Your task to perform on an android device: toggle translation in the chrome app Image 0: 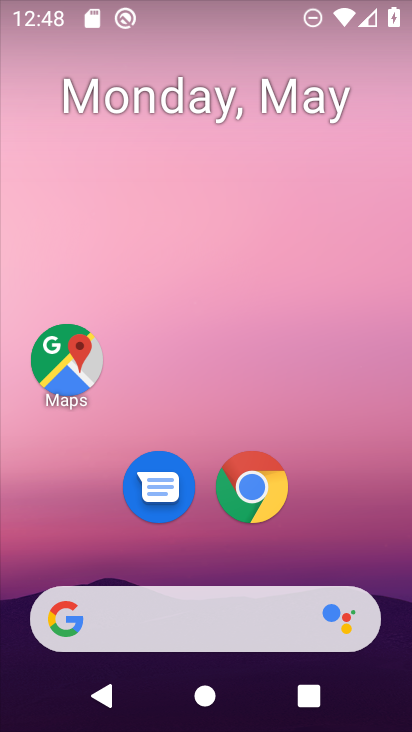
Step 0: click (251, 487)
Your task to perform on an android device: toggle translation in the chrome app Image 1: 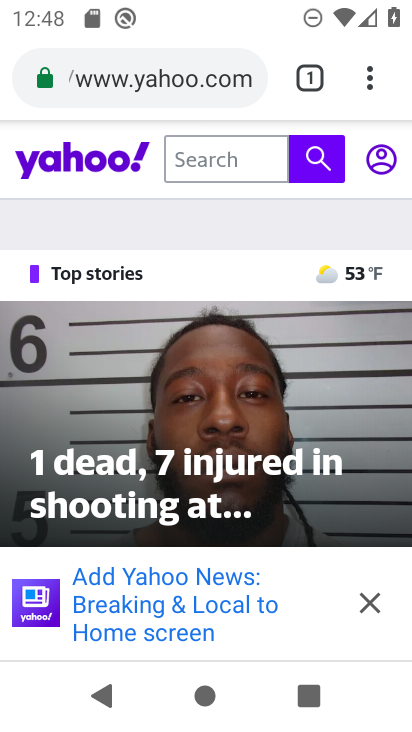
Step 1: click (371, 77)
Your task to perform on an android device: toggle translation in the chrome app Image 2: 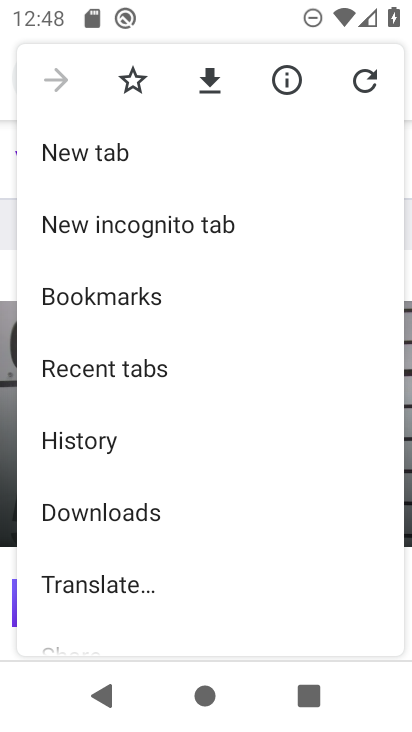
Step 2: drag from (149, 449) to (177, 400)
Your task to perform on an android device: toggle translation in the chrome app Image 3: 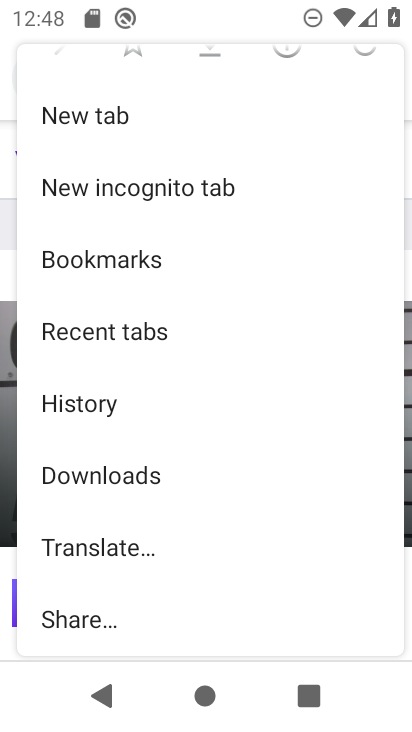
Step 3: drag from (103, 510) to (169, 434)
Your task to perform on an android device: toggle translation in the chrome app Image 4: 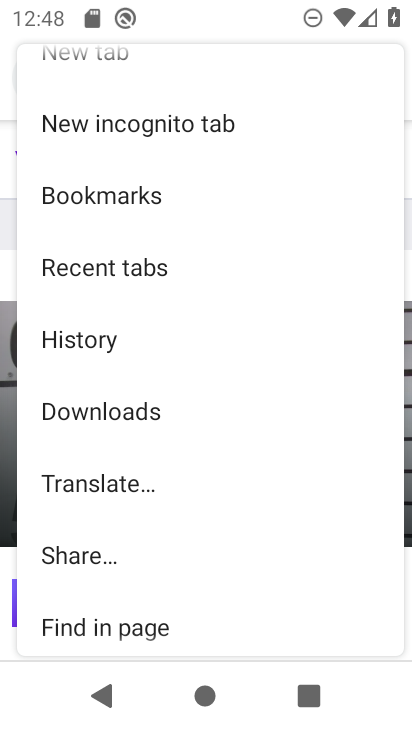
Step 4: drag from (90, 529) to (187, 429)
Your task to perform on an android device: toggle translation in the chrome app Image 5: 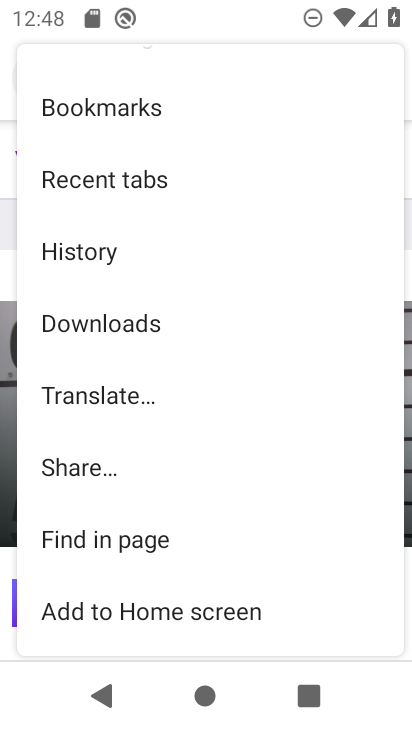
Step 5: drag from (129, 505) to (189, 398)
Your task to perform on an android device: toggle translation in the chrome app Image 6: 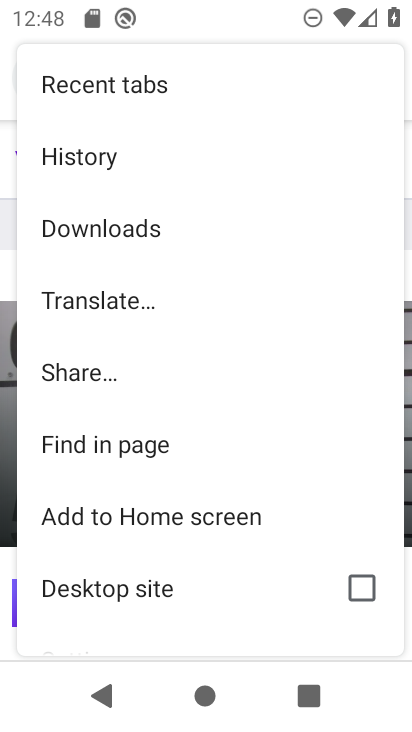
Step 6: drag from (117, 552) to (198, 457)
Your task to perform on an android device: toggle translation in the chrome app Image 7: 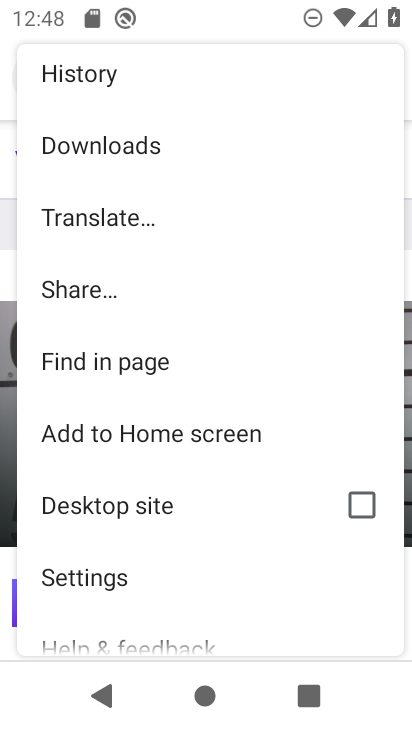
Step 7: drag from (134, 541) to (205, 460)
Your task to perform on an android device: toggle translation in the chrome app Image 8: 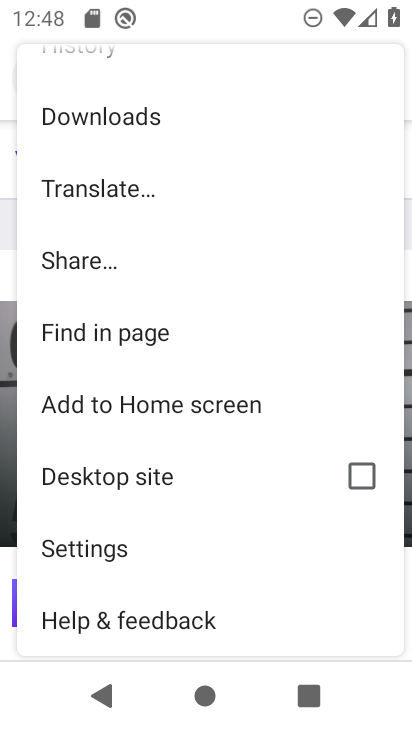
Step 8: click (105, 549)
Your task to perform on an android device: toggle translation in the chrome app Image 9: 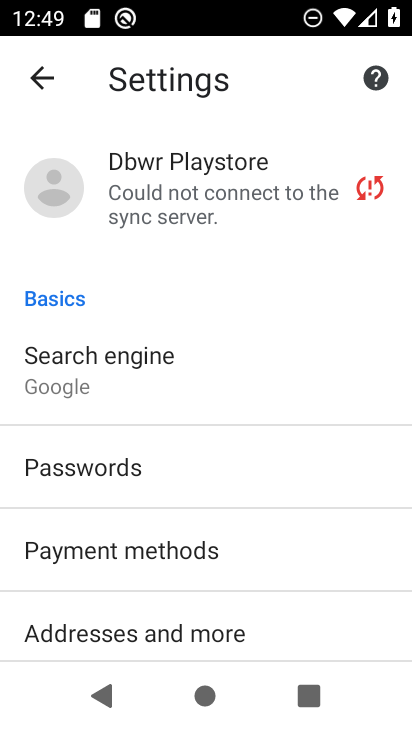
Step 9: drag from (191, 577) to (237, 487)
Your task to perform on an android device: toggle translation in the chrome app Image 10: 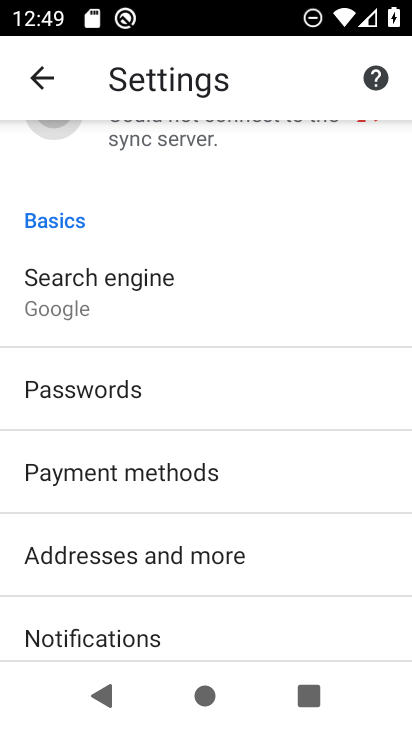
Step 10: drag from (175, 587) to (226, 512)
Your task to perform on an android device: toggle translation in the chrome app Image 11: 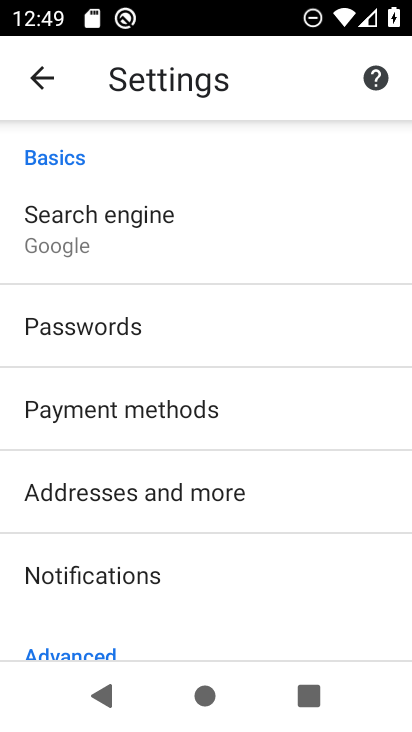
Step 11: drag from (199, 571) to (248, 491)
Your task to perform on an android device: toggle translation in the chrome app Image 12: 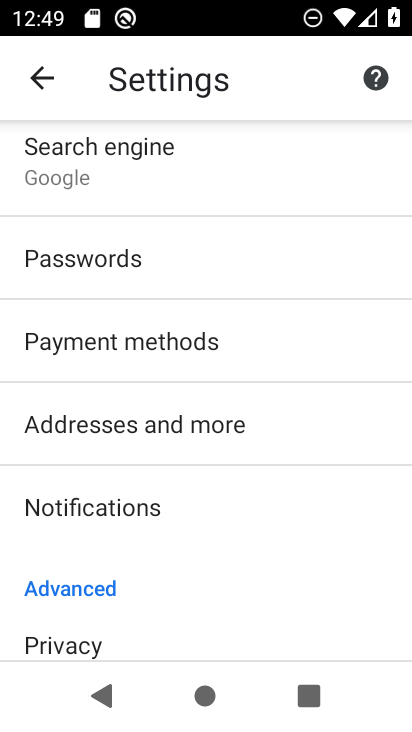
Step 12: drag from (152, 597) to (272, 465)
Your task to perform on an android device: toggle translation in the chrome app Image 13: 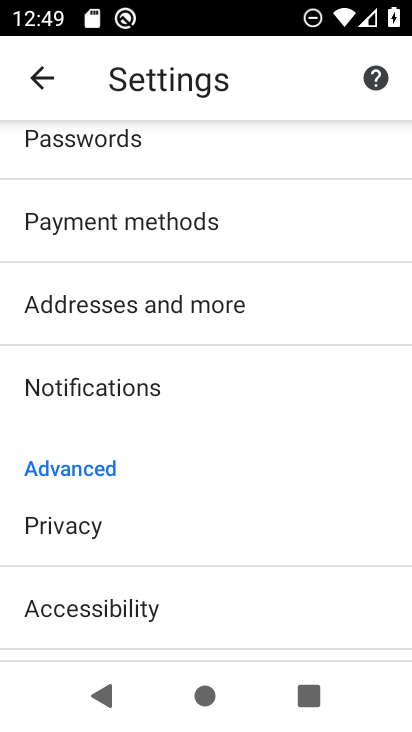
Step 13: drag from (147, 583) to (260, 465)
Your task to perform on an android device: toggle translation in the chrome app Image 14: 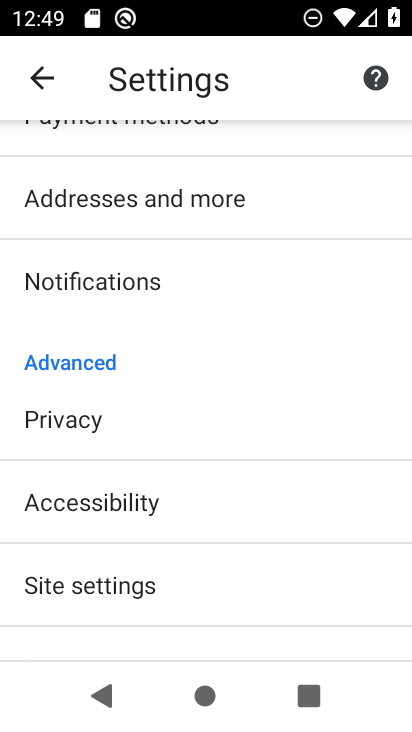
Step 14: drag from (168, 567) to (232, 490)
Your task to perform on an android device: toggle translation in the chrome app Image 15: 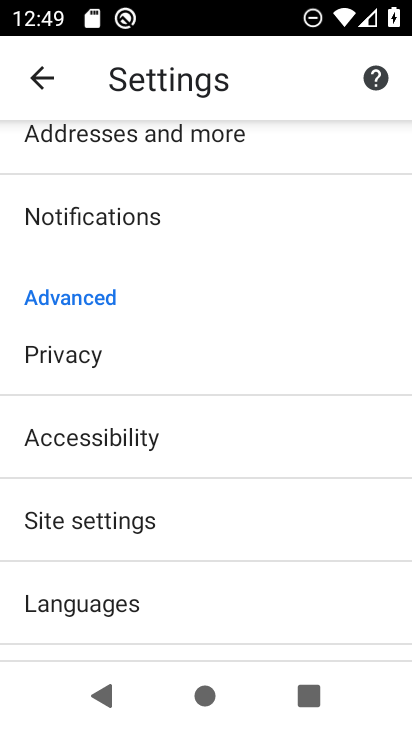
Step 15: drag from (155, 596) to (250, 477)
Your task to perform on an android device: toggle translation in the chrome app Image 16: 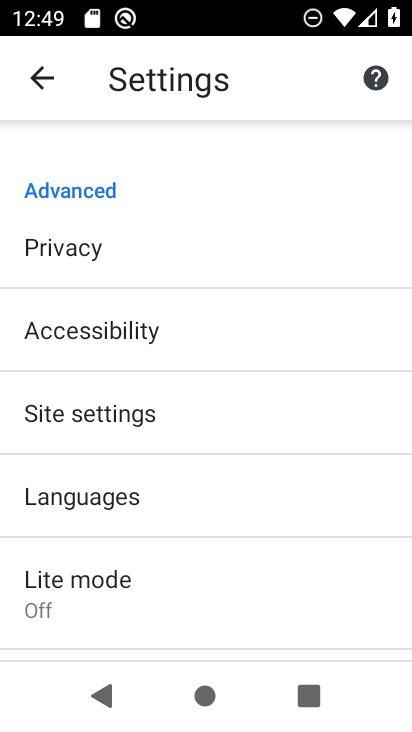
Step 16: click (104, 497)
Your task to perform on an android device: toggle translation in the chrome app Image 17: 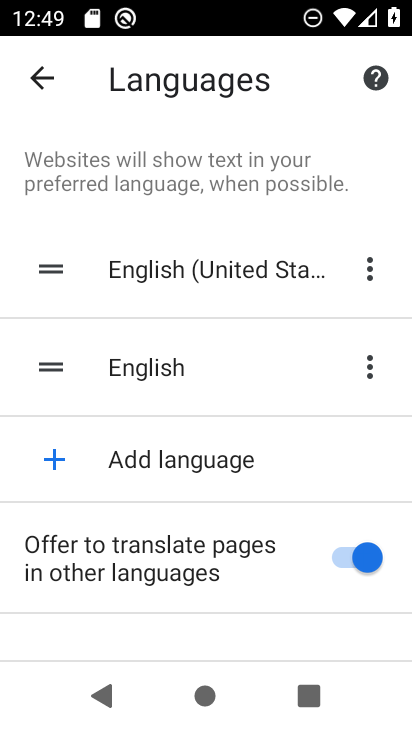
Step 17: click (356, 561)
Your task to perform on an android device: toggle translation in the chrome app Image 18: 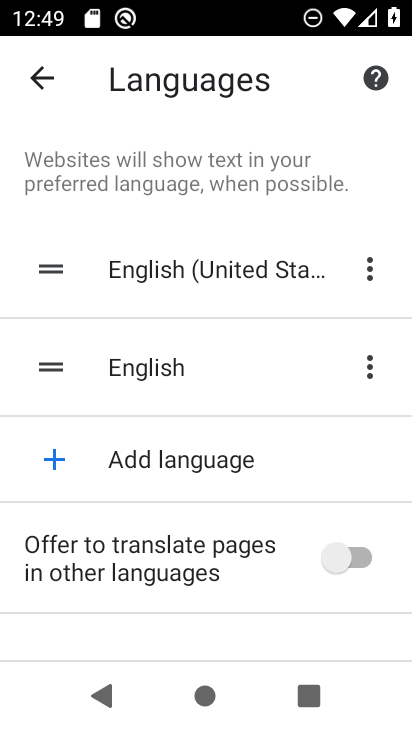
Step 18: task complete